Your task to perform on an android device: toggle improve location accuracy Image 0: 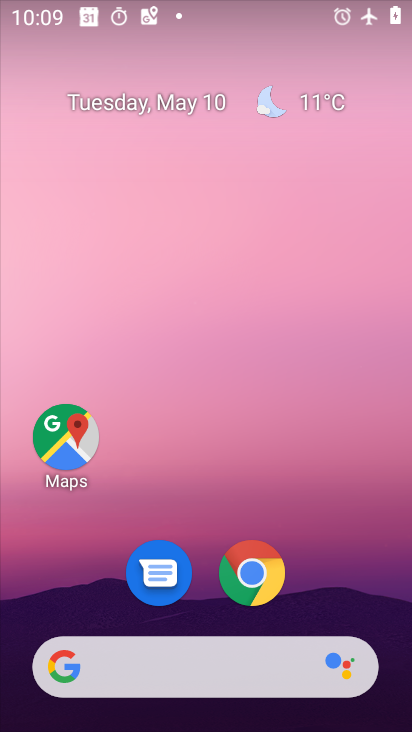
Step 0: drag from (376, 605) to (342, 8)
Your task to perform on an android device: toggle improve location accuracy Image 1: 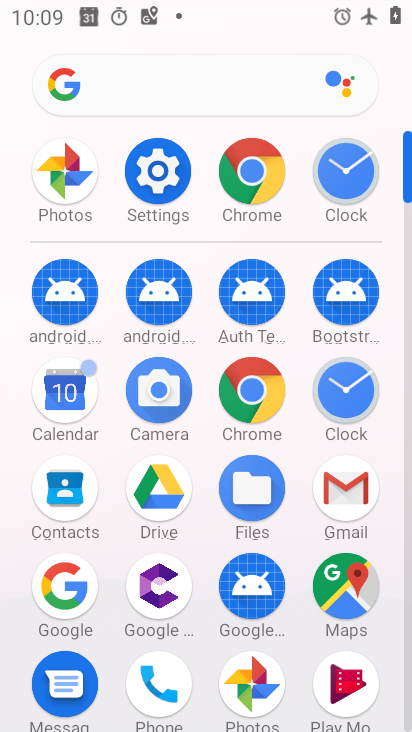
Step 1: click (166, 183)
Your task to perform on an android device: toggle improve location accuracy Image 2: 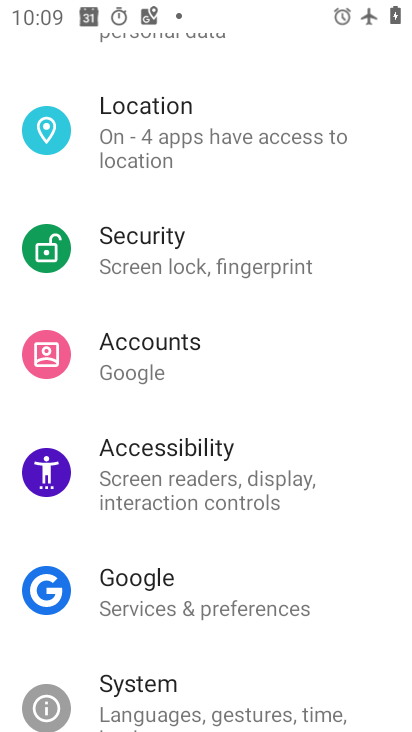
Step 2: drag from (251, 597) to (223, 625)
Your task to perform on an android device: toggle improve location accuracy Image 3: 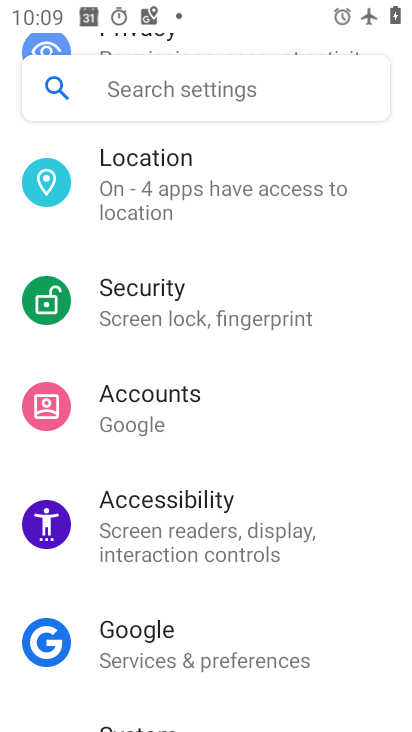
Step 3: click (157, 179)
Your task to perform on an android device: toggle improve location accuracy Image 4: 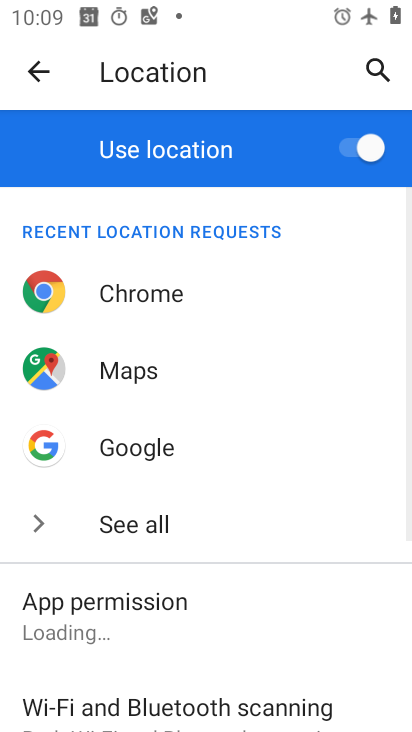
Step 4: drag from (190, 547) to (172, 265)
Your task to perform on an android device: toggle improve location accuracy Image 5: 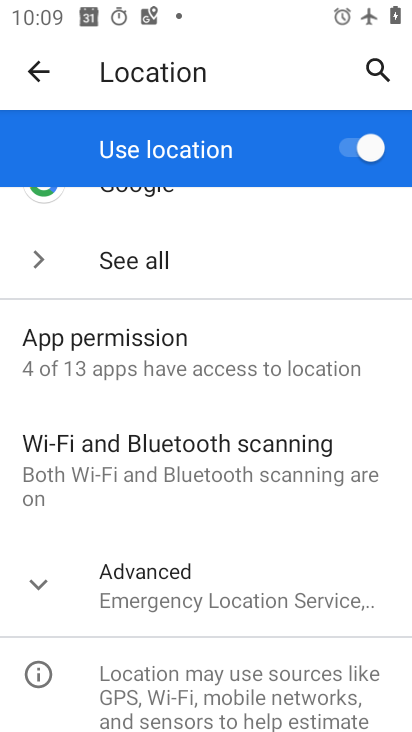
Step 5: click (35, 589)
Your task to perform on an android device: toggle improve location accuracy Image 6: 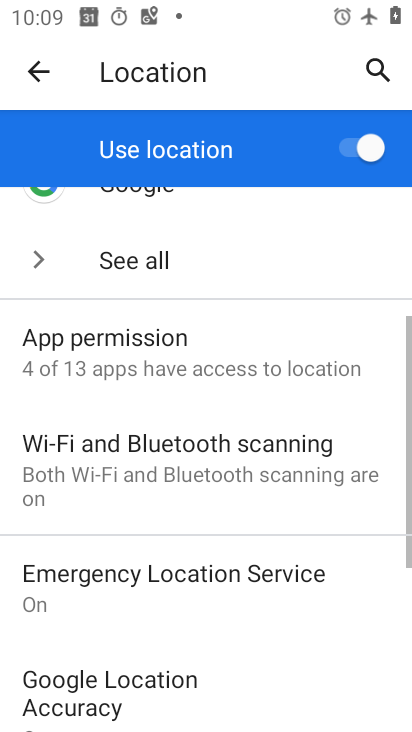
Step 6: drag from (134, 593) to (148, 251)
Your task to perform on an android device: toggle improve location accuracy Image 7: 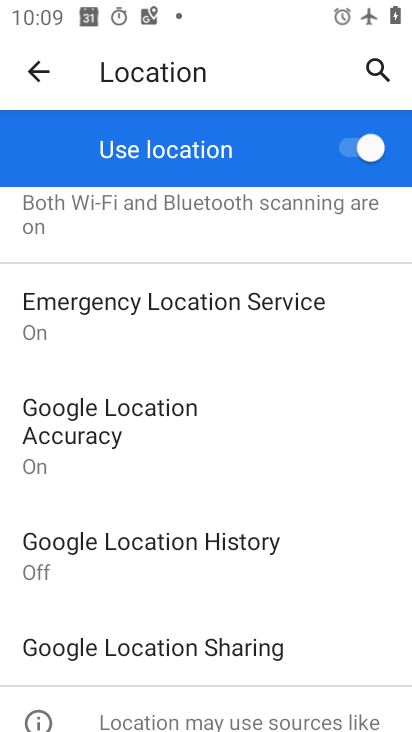
Step 7: click (78, 440)
Your task to perform on an android device: toggle improve location accuracy Image 8: 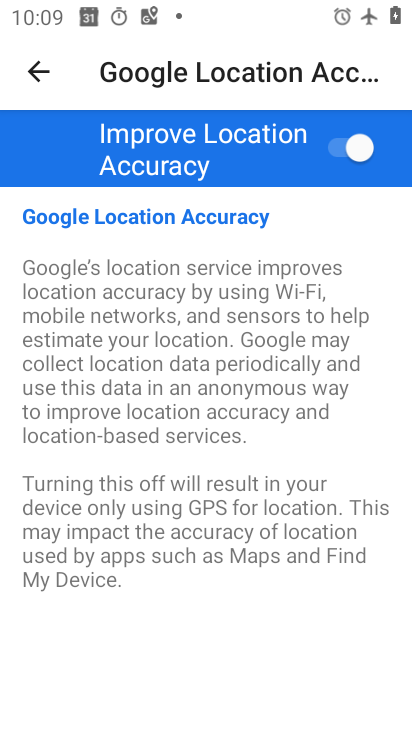
Step 8: click (357, 158)
Your task to perform on an android device: toggle improve location accuracy Image 9: 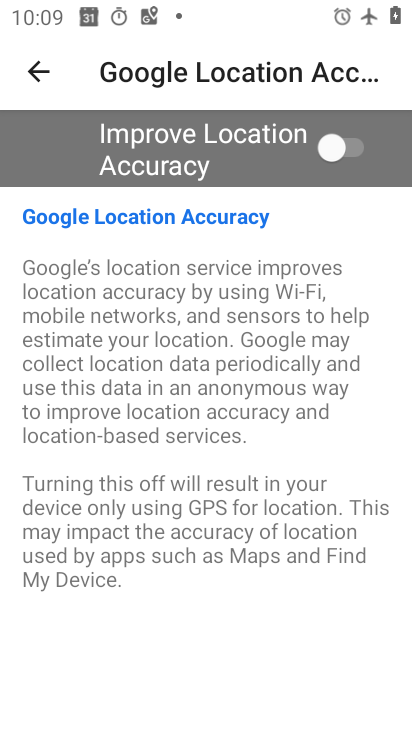
Step 9: task complete